Your task to perform on an android device: Go to eBay Image 0: 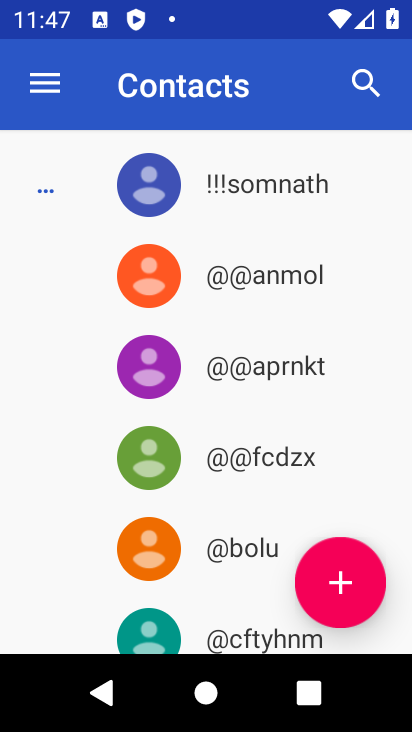
Step 0: press home button
Your task to perform on an android device: Go to eBay Image 1: 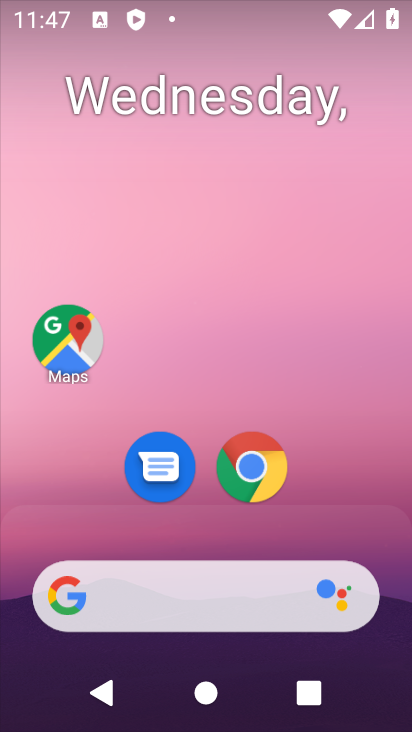
Step 1: click (211, 591)
Your task to perform on an android device: Go to eBay Image 2: 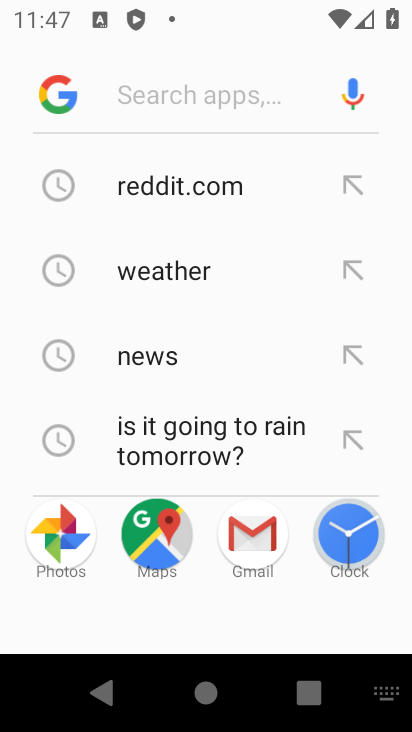
Step 2: type "eBay"
Your task to perform on an android device: Go to eBay Image 3: 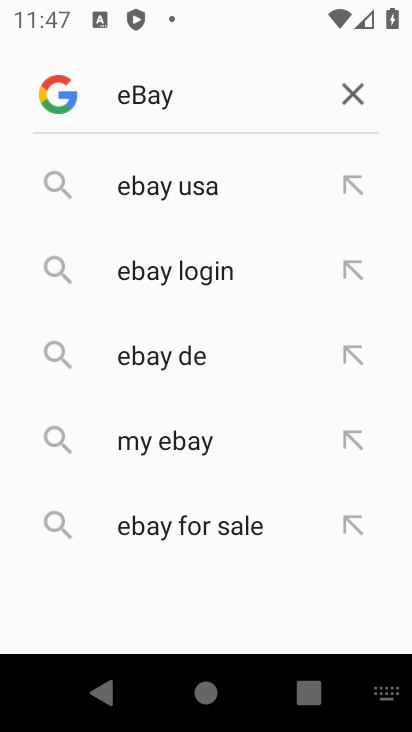
Step 3: click (179, 193)
Your task to perform on an android device: Go to eBay Image 4: 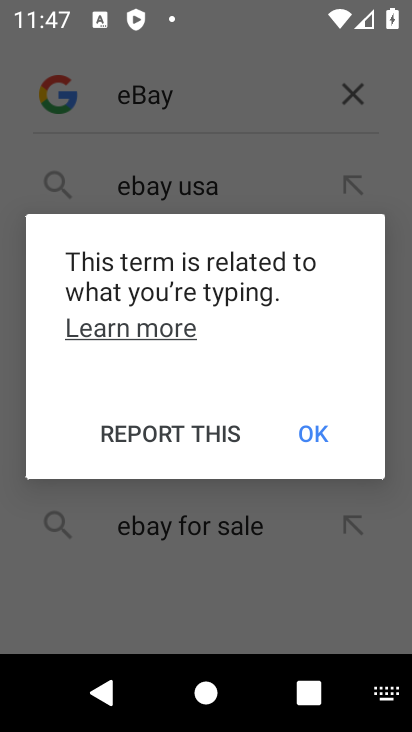
Step 4: click (298, 433)
Your task to perform on an android device: Go to eBay Image 5: 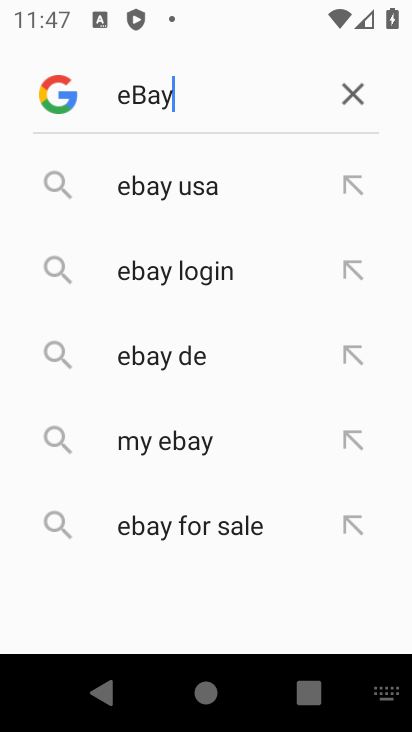
Step 5: click (312, 424)
Your task to perform on an android device: Go to eBay Image 6: 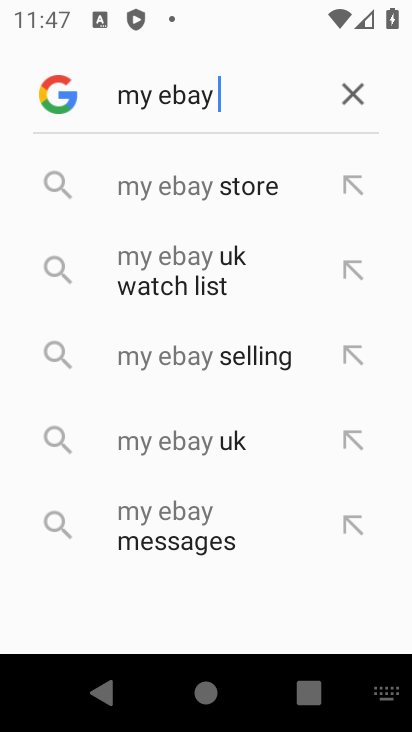
Step 6: click (351, 94)
Your task to perform on an android device: Go to eBay Image 7: 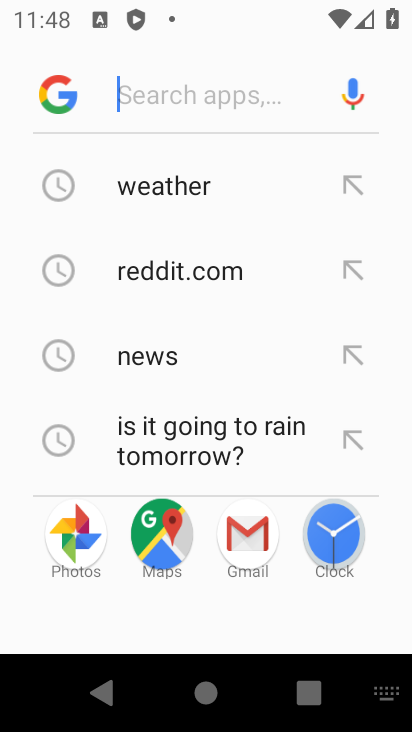
Step 7: type "eBay"
Your task to perform on an android device: Go to eBay Image 8: 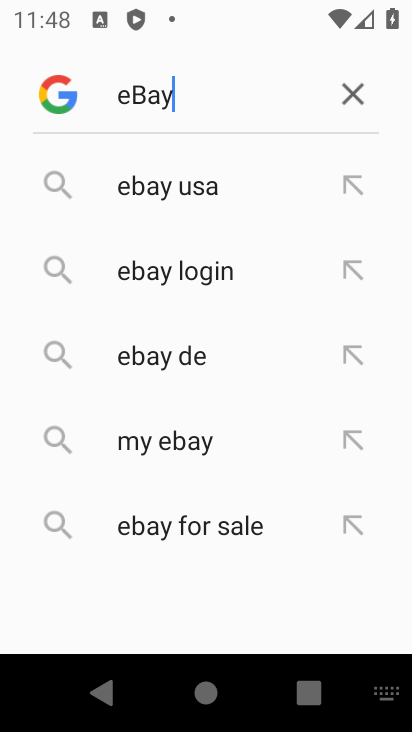
Step 8: click (179, 269)
Your task to perform on an android device: Go to eBay Image 9: 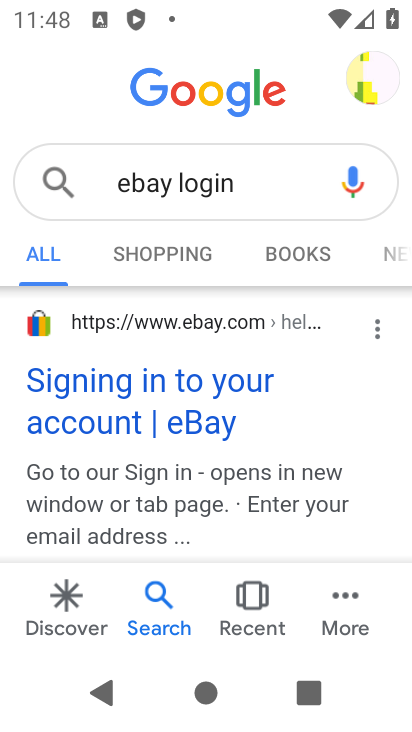
Step 9: click (183, 395)
Your task to perform on an android device: Go to eBay Image 10: 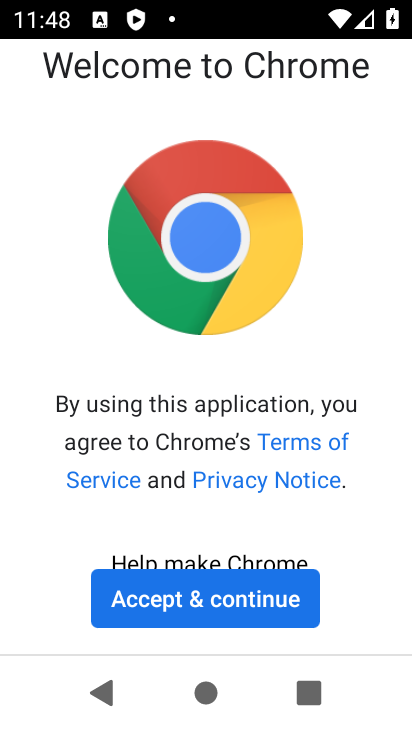
Step 10: click (270, 587)
Your task to perform on an android device: Go to eBay Image 11: 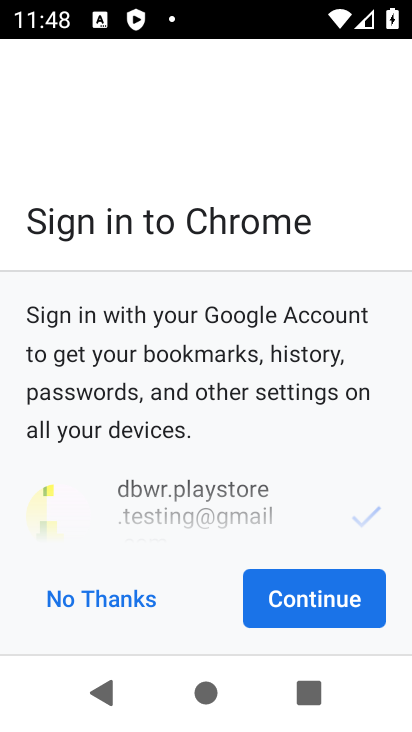
Step 11: click (270, 587)
Your task to perform on an android device: Go to eBay Image 12: 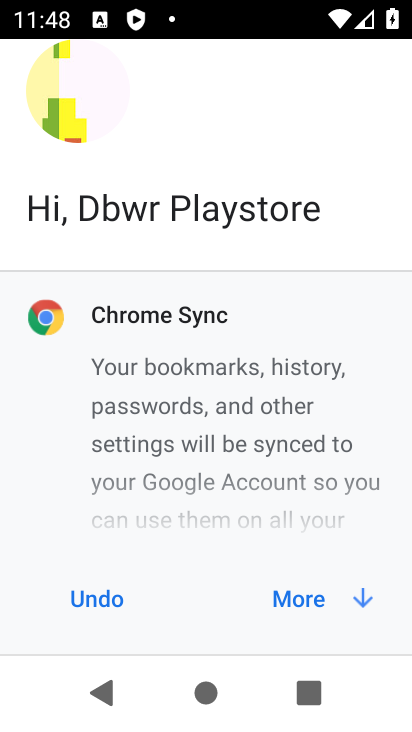
Step 12: click (276, 589)
Your task to perform on an android device: Go to eBay Image 13: 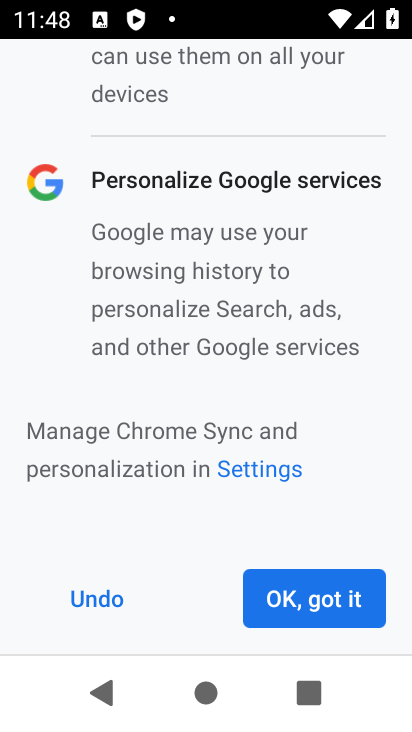
Step 13: click (276, 589)
Your task to perform on an android device: Go to eBay Image 14: 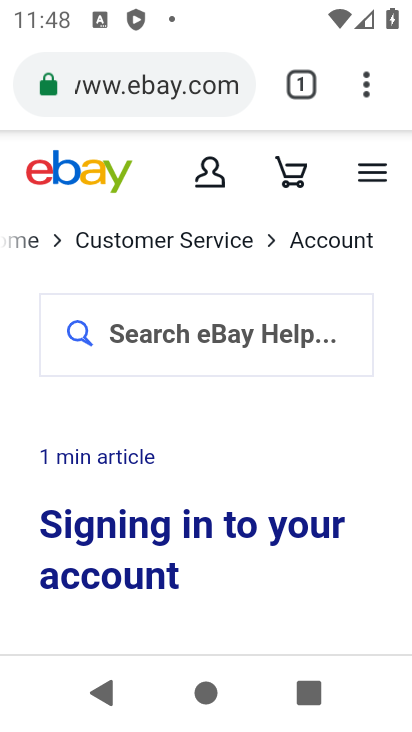
Step 14: task complete